Your task to perform on an android device: turn off priority inbox in the gmail app Image 0: 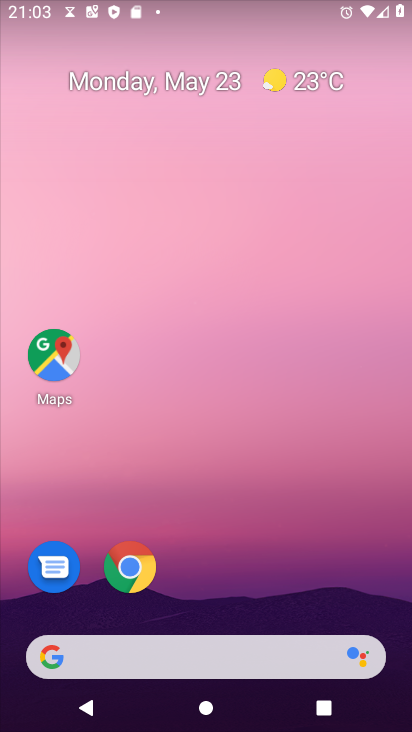
Step 0: drag from (248, 599) to (246, 207)
Your task to perform on an android device: turn off priority inbox in the gmail app Image 1: 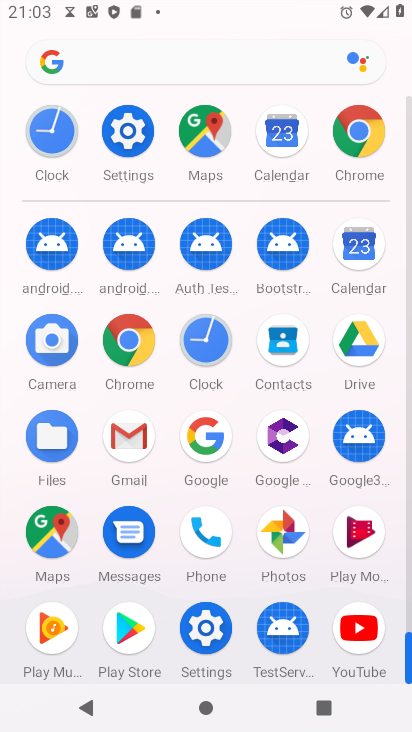
Step 1: click (129, 439)
Your task to perform on an android device: turn off priority inbox in the gmail app Image 2: 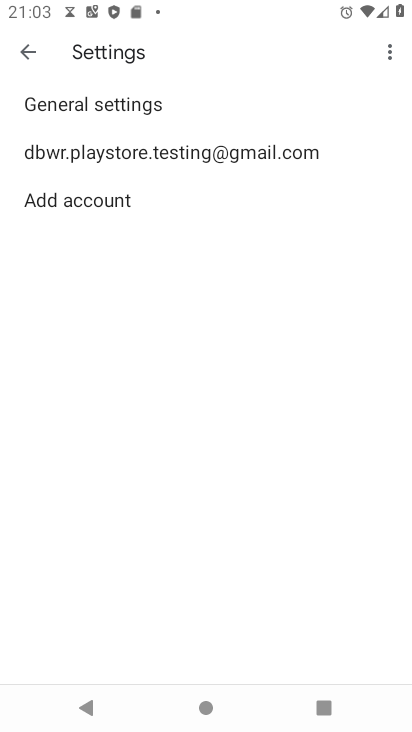
Step 2: click (120, 142)
Your task to perform on an android device: turn off priority inbox in the gmail app Image 3: 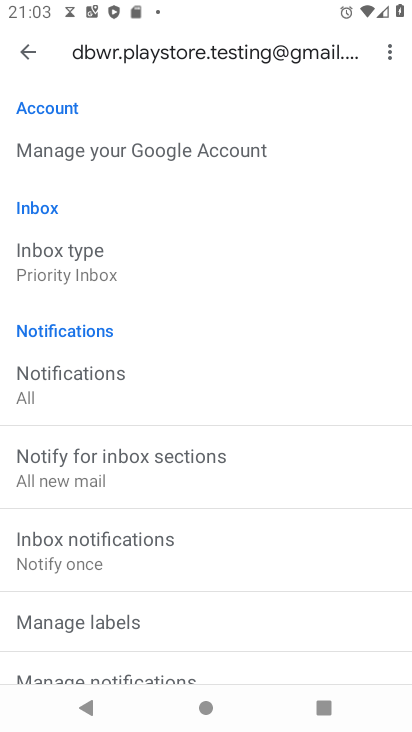
Step 3: click (89, 259)
Your task to perform on an android device: turn off priority inbox in the gmail app Image 4: 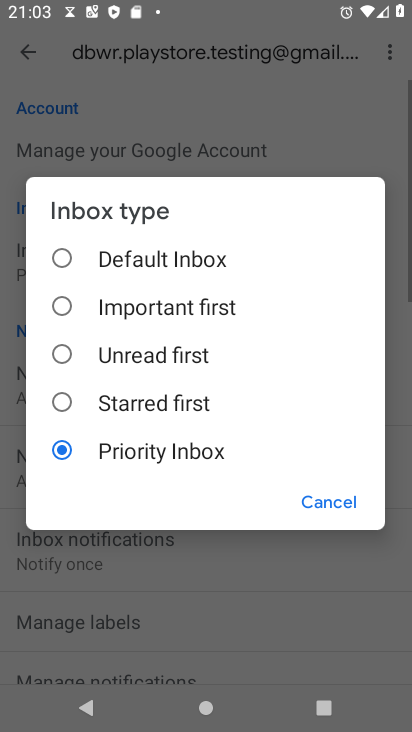
Step 4: click (110, 264)
Your task to perform on an android device: turn off priority inbox in the gmail app Image 5: 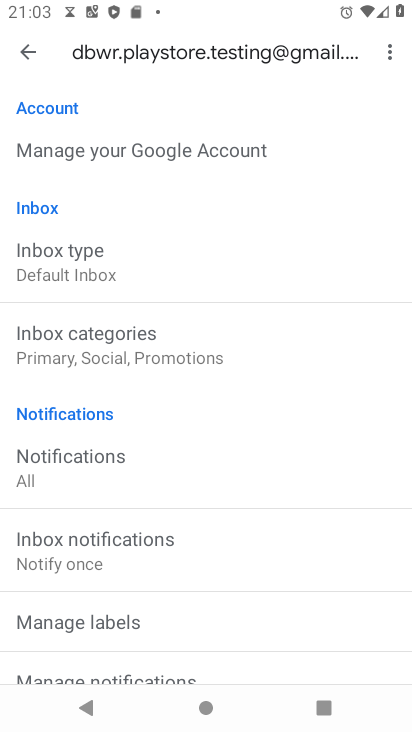
Step 5: task complete